Your task to perform on an android device: Open the stopwatch Image 0: 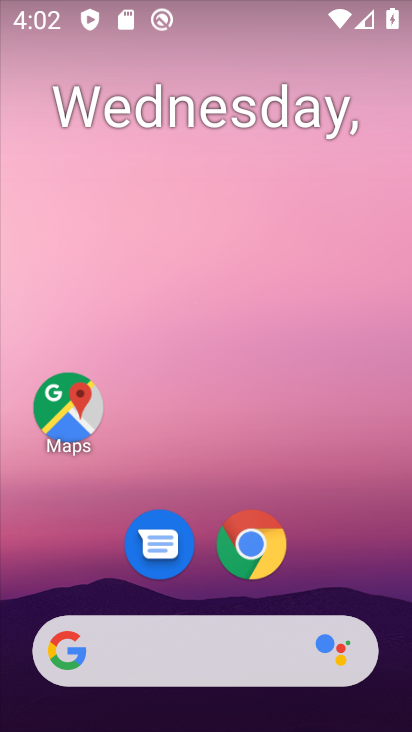
Step 0: drag from (110, 597) to (213, 183)
Your task to perform on an android device: Open the stopwatch Image 1: 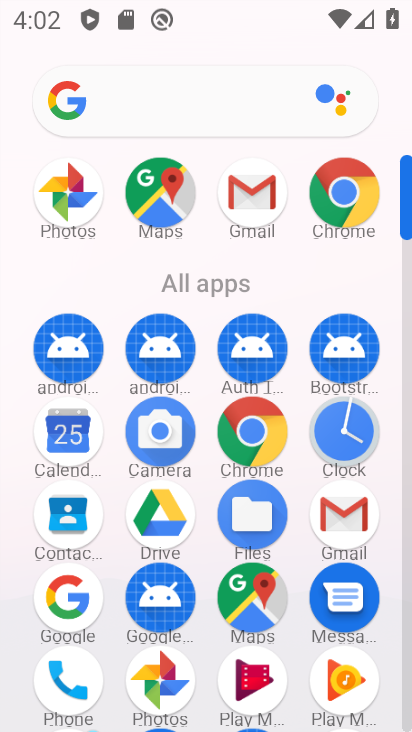
Step 1: click (338, 430)
Your task to perform on an android device: Open the stopwatch Image 2: 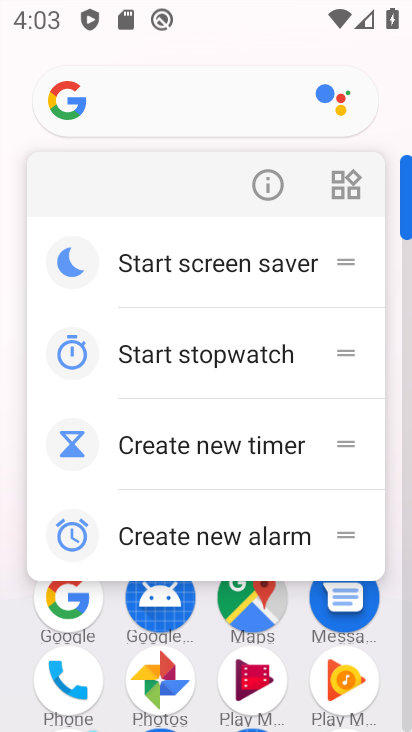
Step 2: press back button
Your task to perform on an android device: Open the stopwatch Image 3: 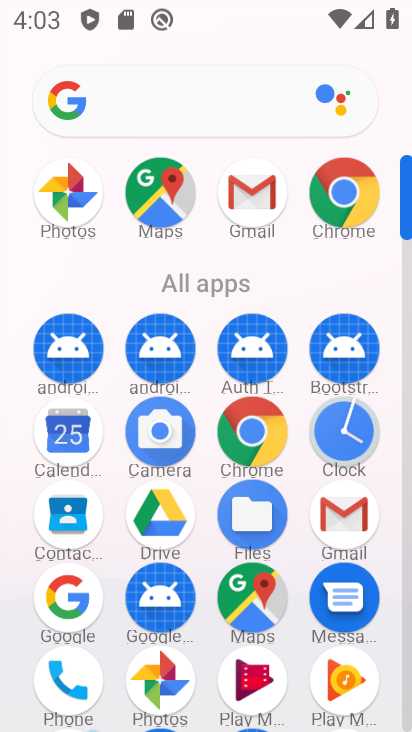
Step 3: click (342, 409)
Your task to perform on an android device: Open the stopwatch Image 4: 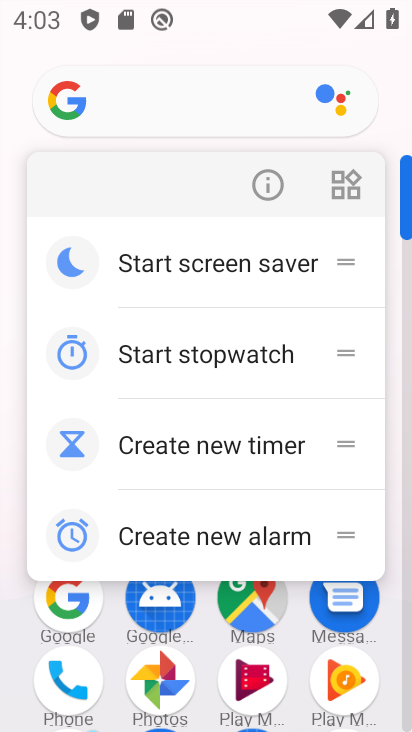
Step 4: press back button
Your task to perform on an android device: Open the stopwatch Image 5: 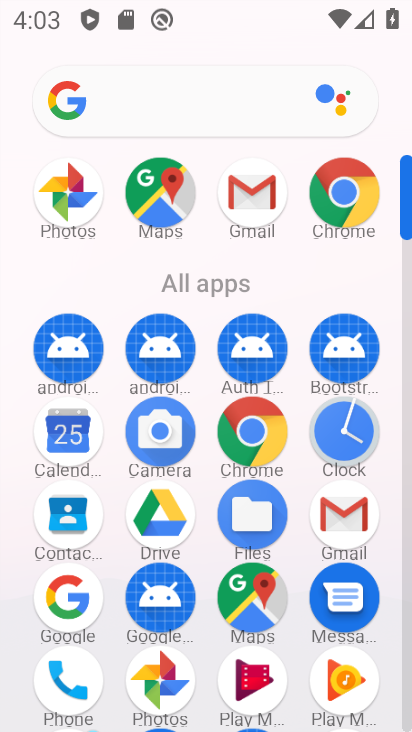
Step 5: click (337, 432)
Your task to perform on an android device: Open the stopwatch Image 6: 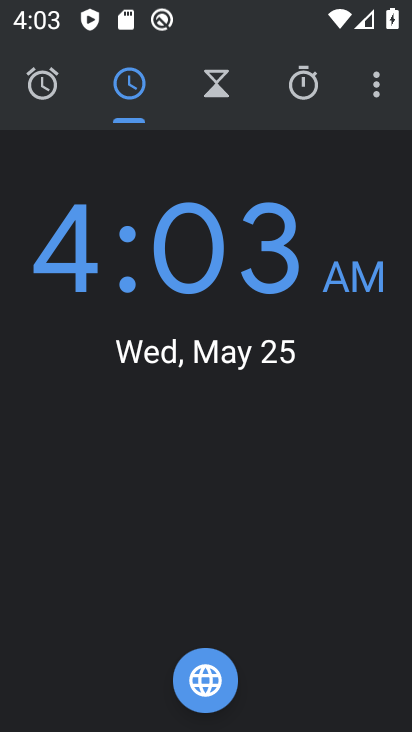
Step 6: click (298, 90)
Your task to perform on an android device: Open the stopwatch Image 7: 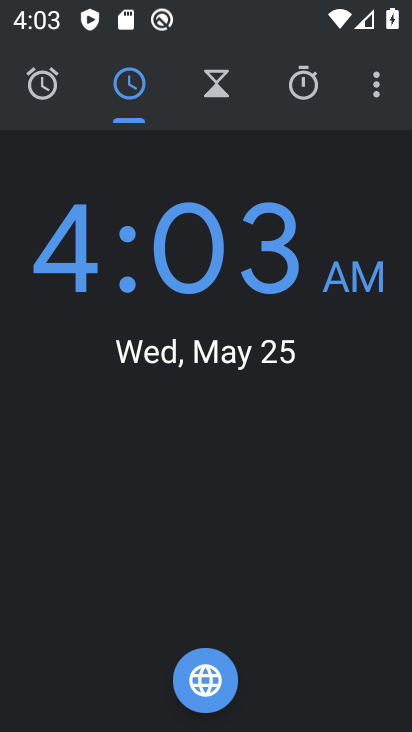
Step 7: click (321, 91)
Your task to perform on an android device: Open the stopwatch Image 8: 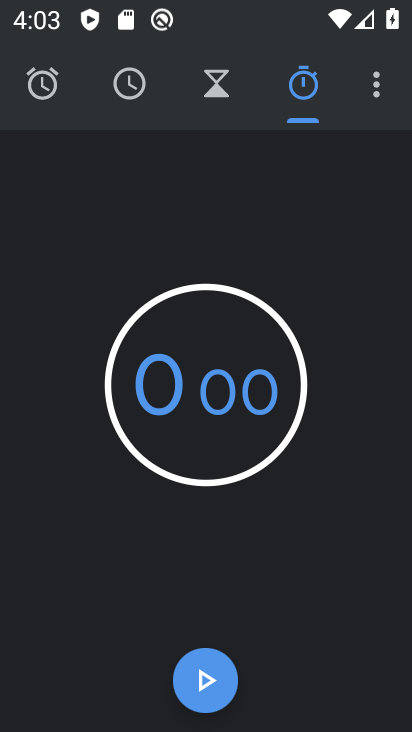
Step 8: task complete